Your task to perform on an android device: open app "Venmo" Image 0: 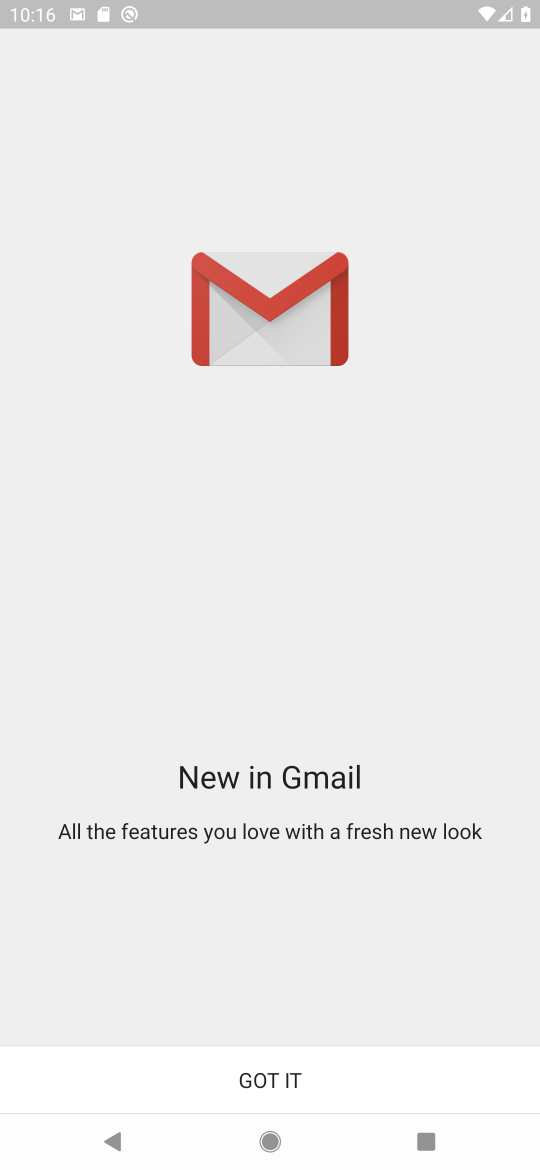
Step 0: press home button
Your task to perform on an android device: open app "Venmo" Image 1: 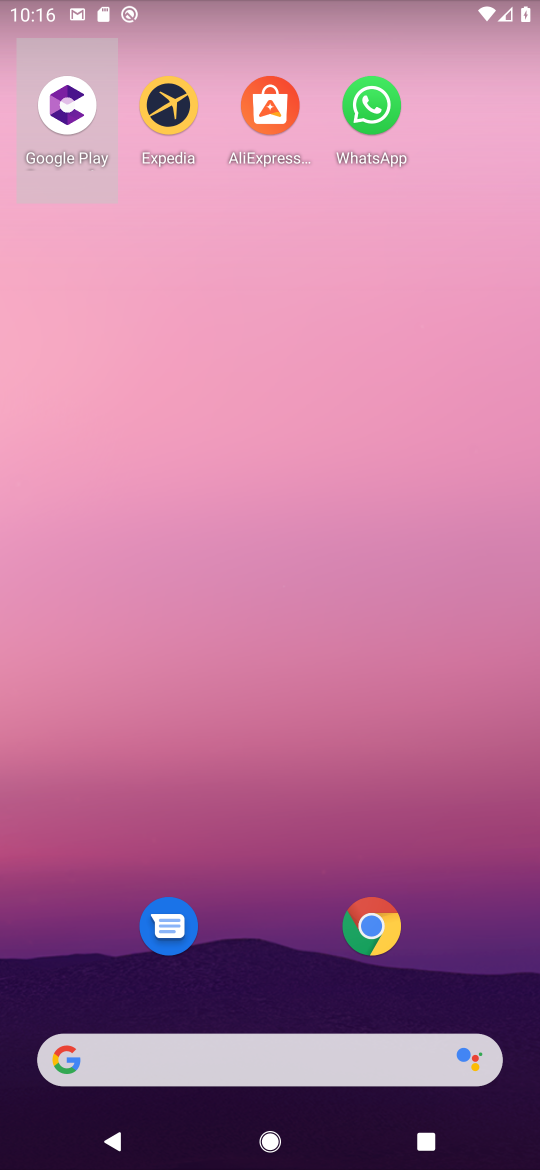
Step 1: drag from (179, 355) to (164, 53)
Your task to perform on an android device: open app "Venmo" Image 2: 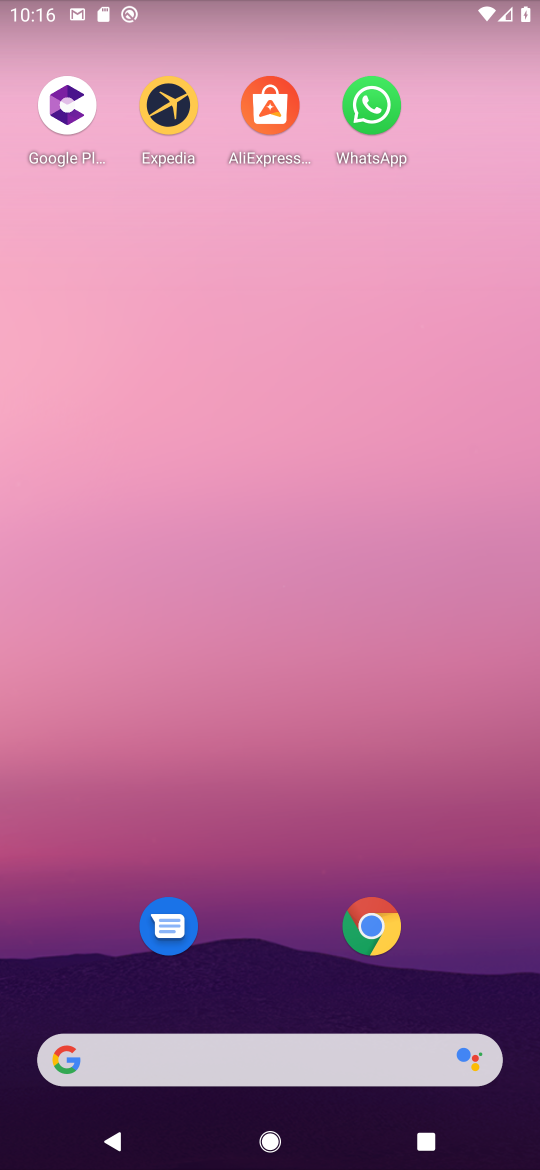
Step 2: drag from (139, 433) to (188, 95)
Your task to perform on an android device: open app "Venmo" Image 3: 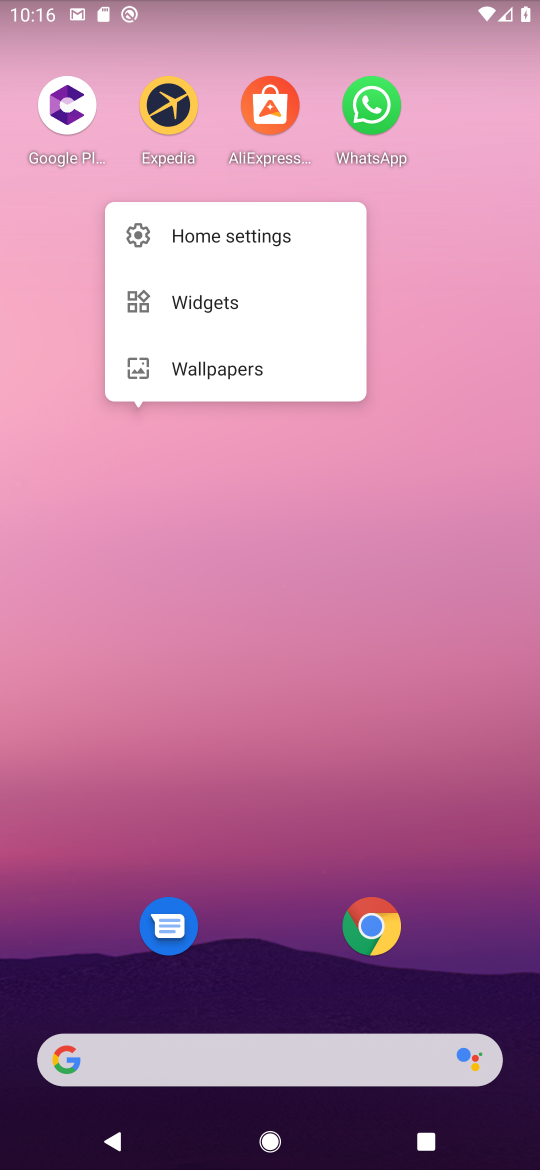
Step 3: drag from (290, 665) to (251, 46)
Your task to perform on an android device: open app "Venmo" Image 4: 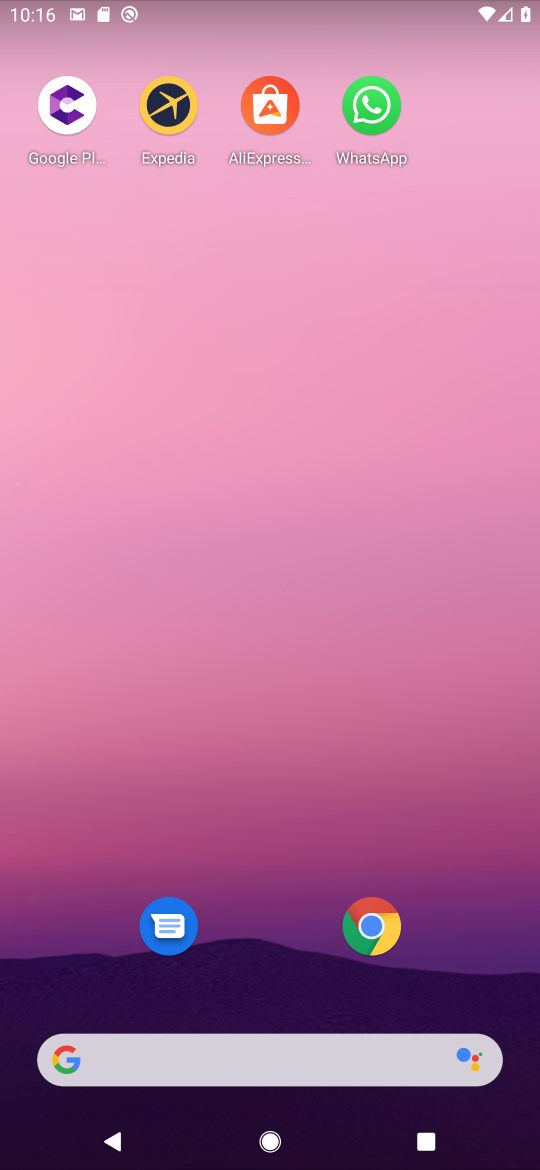
Step 4: drag from (225, 557) to (253, 4)
Your task to perform on an android device: open app "Venmo" Image 5: 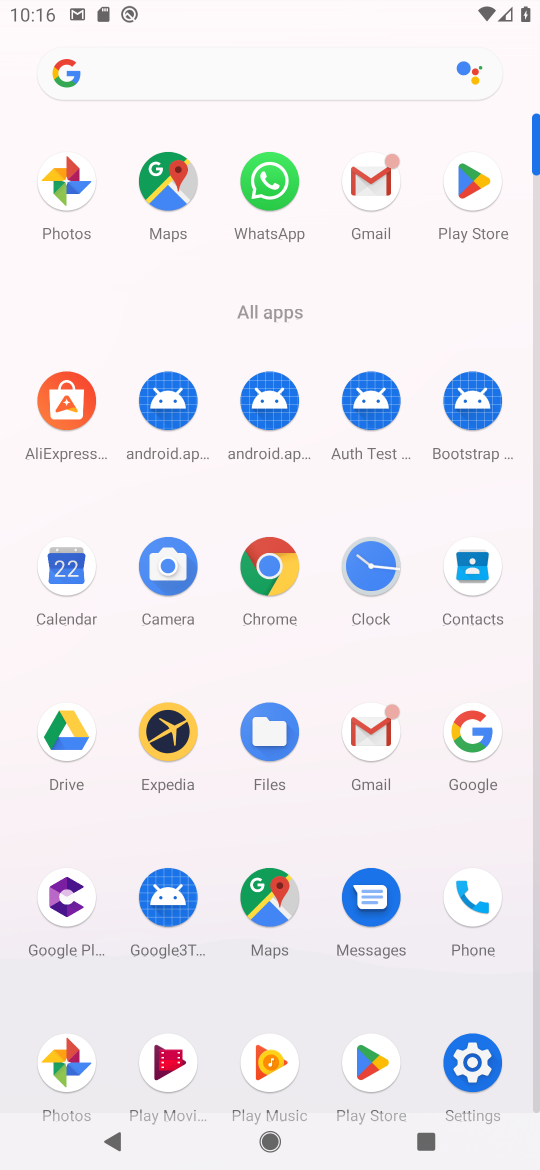
Step 5: click (485, 190)
Your task to perform on an android device: open app "Venmo" Image 6: 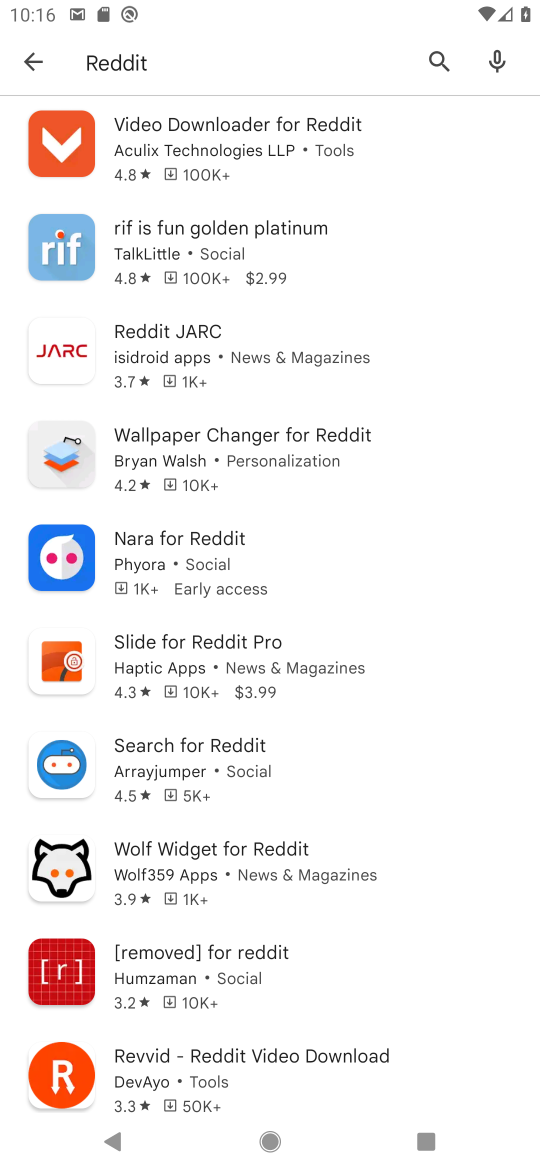
Step 6: press back button
Your task to perform on an android device: open app "Venmo" Image 7: 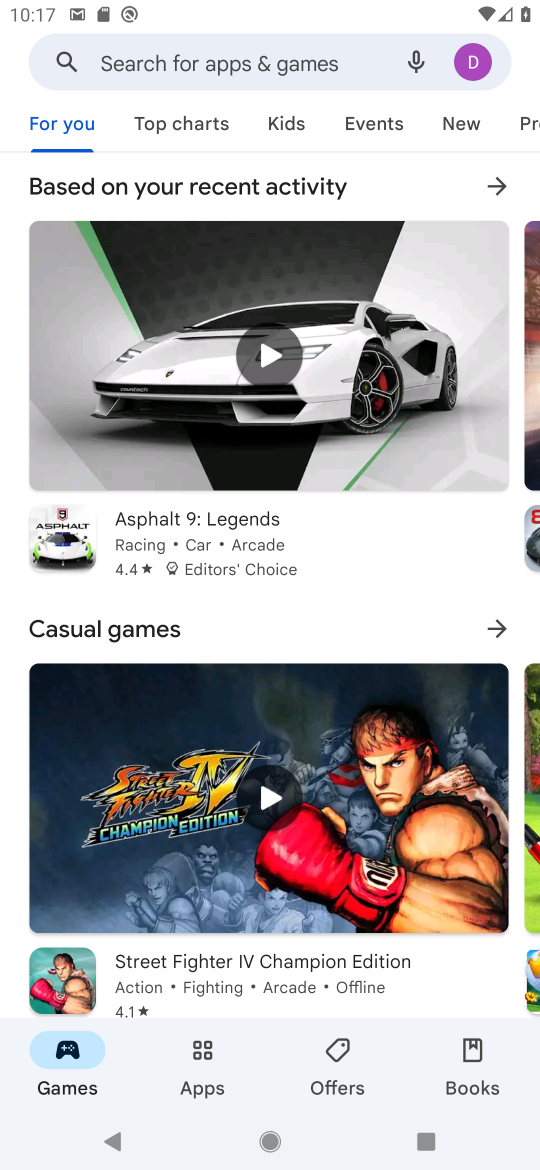
Step 7: click (250, 78)
Your task to perform on an android device: open app "Venmo" Image 8: 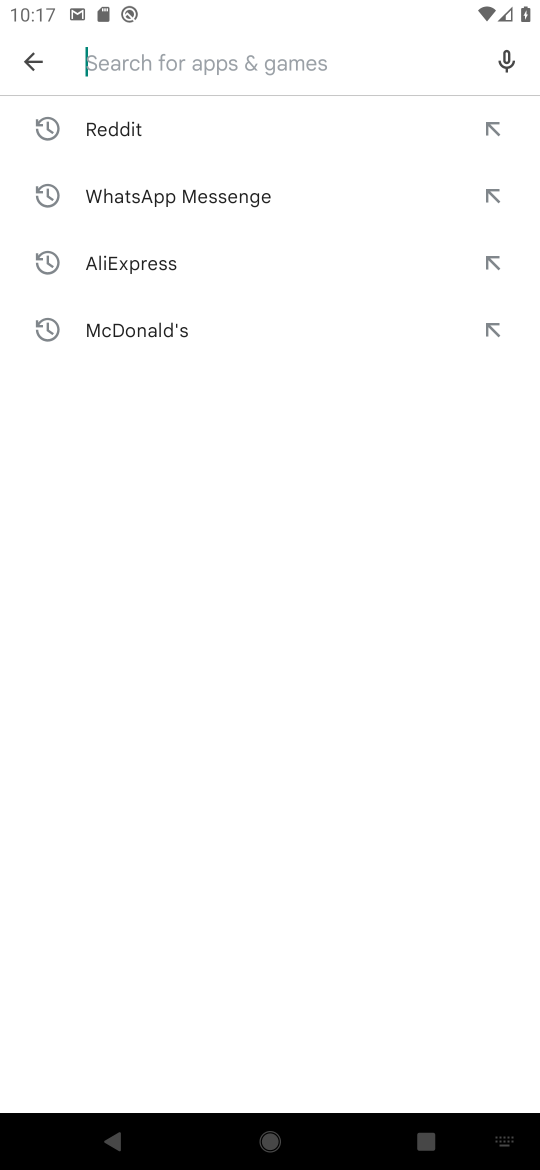
Step 8: press enter
Your task to perform on an android device: open app "Venmo" Image 9: 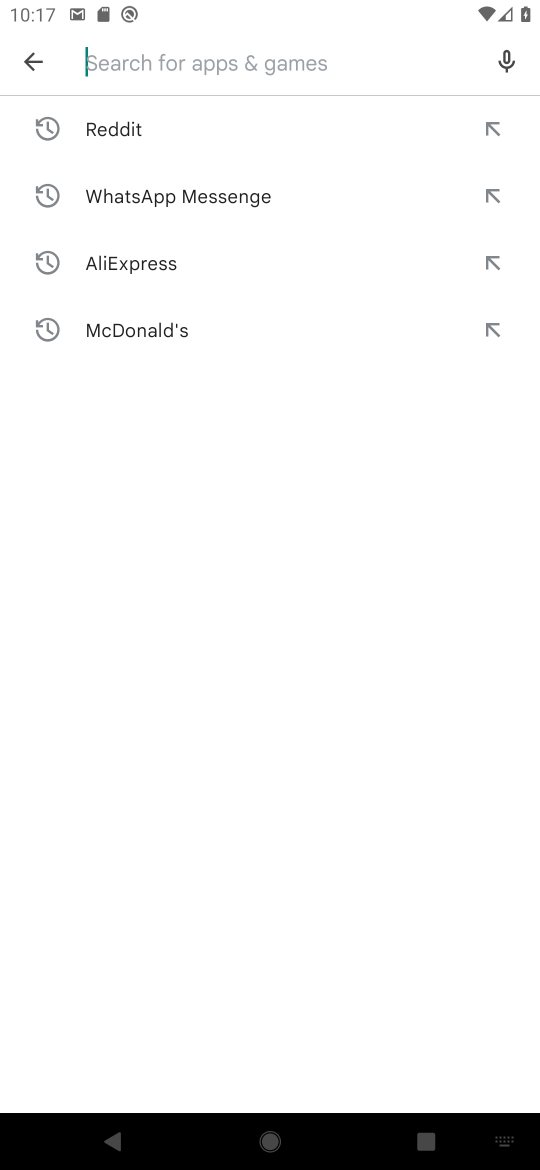
Step 9: type "Venmo"
Your task to perform on an android device: open app "Venmo" Image 10: 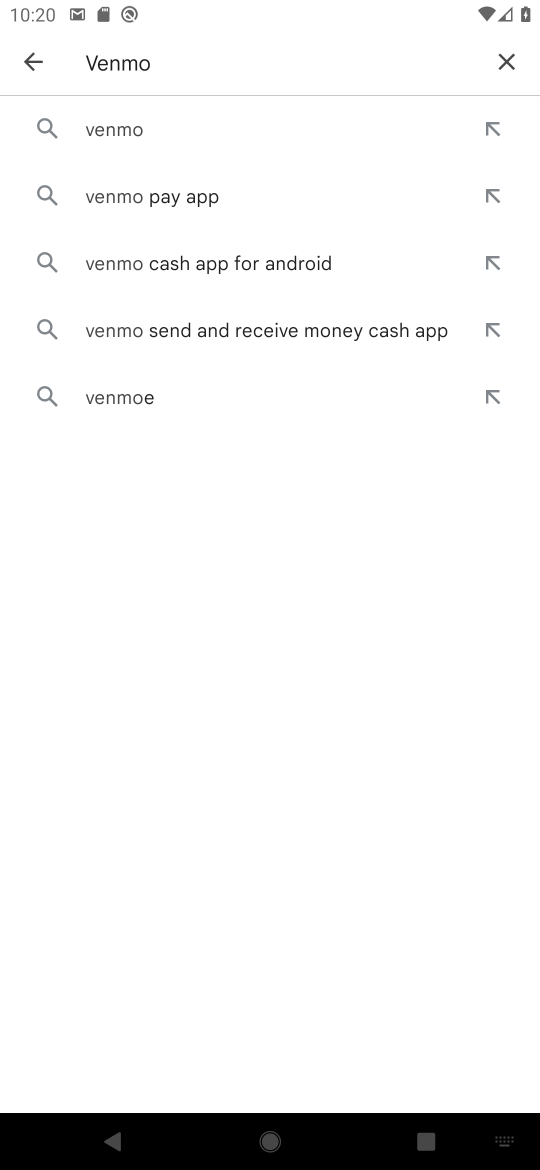
Step 10: press enter
Your task to perform on an android device: open app "Venmo" Image 11: 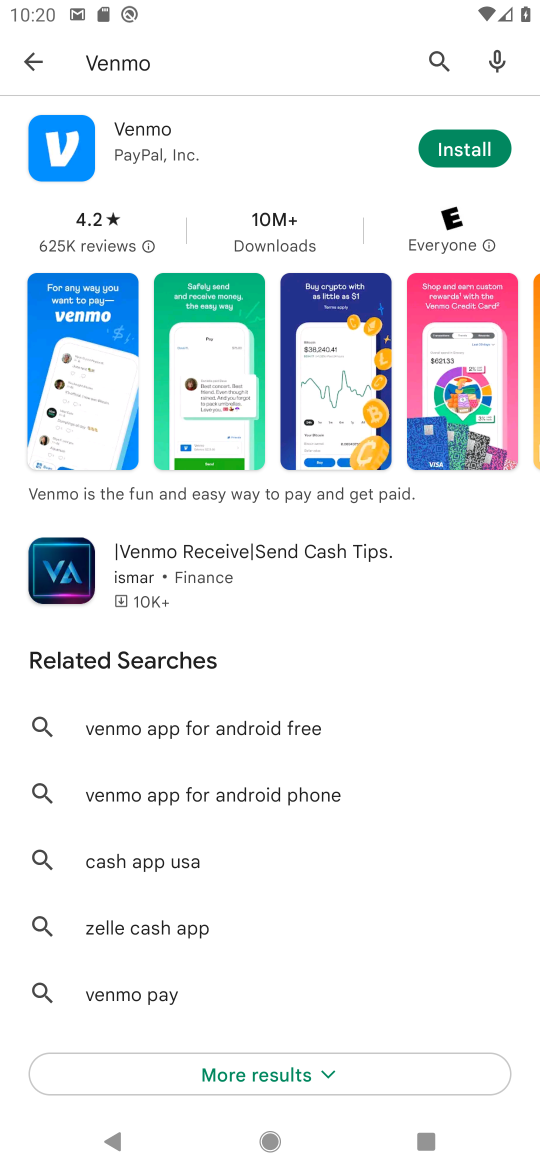
Step 11: task complete